Your task to perform on an android device: open chrome privacy settings Image 0: 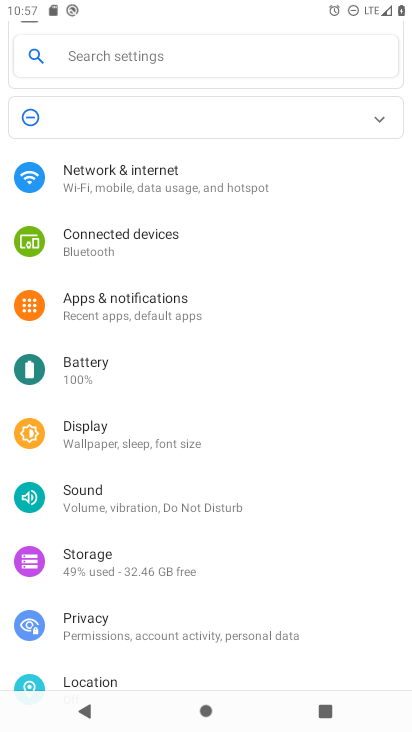
Step 0: press home button
Your task to perform on an android device: open chrome privacy settings Image 1: 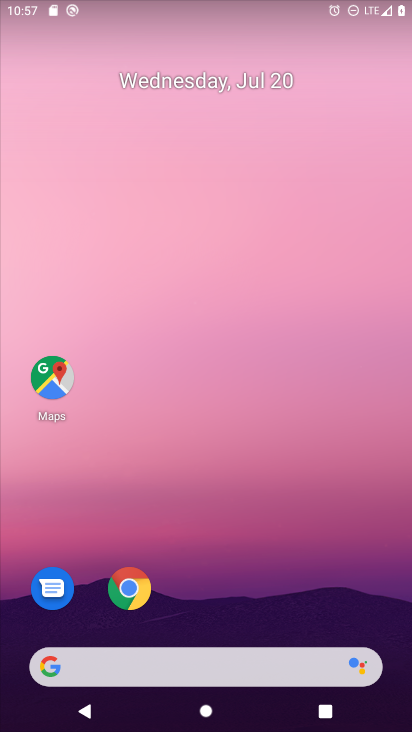
Step 1: click (127, 594)
Your task to perform on an android device: open chrome privacy settings Image 2: 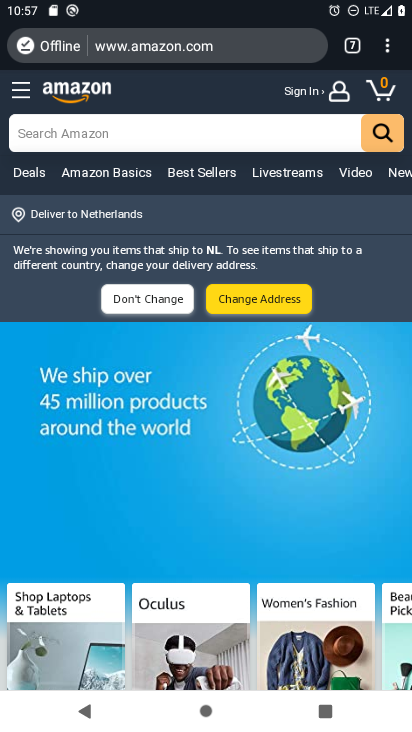
Step 2: click (383, 57)
Your task to perform on an android device: open chrome privacy settings Image 3: 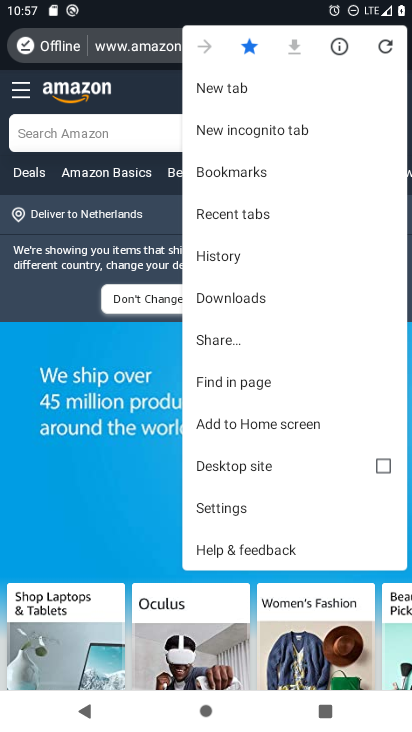
Step 3: click (247, 517)
Your task to perform on an android device: open chrome privacy settings Image 4: 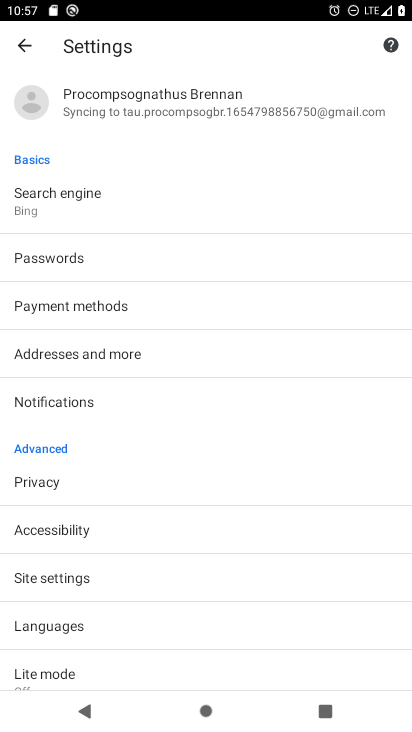
Step 4: click (52, 500)
Your task to perform on an android device: open chrome privacy settings Image 5: 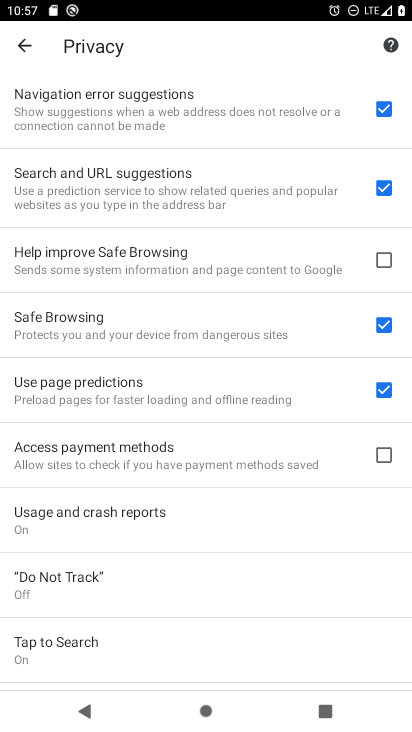
Step 5: task complete